Your task to perform on an android device: Open network settings Image 0: 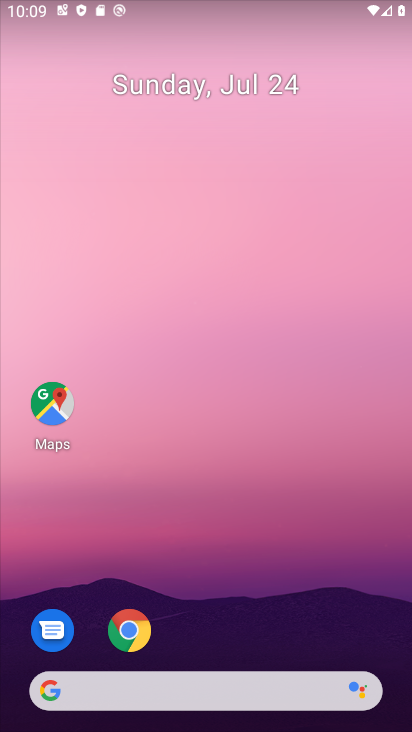
Step 0: drag from (222, 657) to (175, 169)
Your task to perform on an android device: Open network settings Image 1: 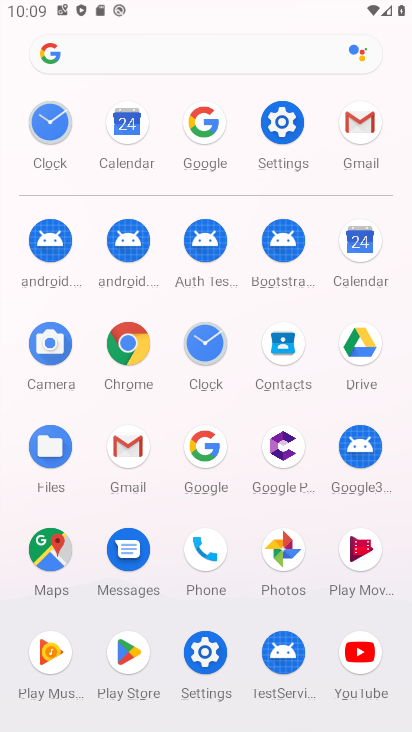
Step 1: click (283, 125)
Your task to perform on an android device: Open network settings Image 2: 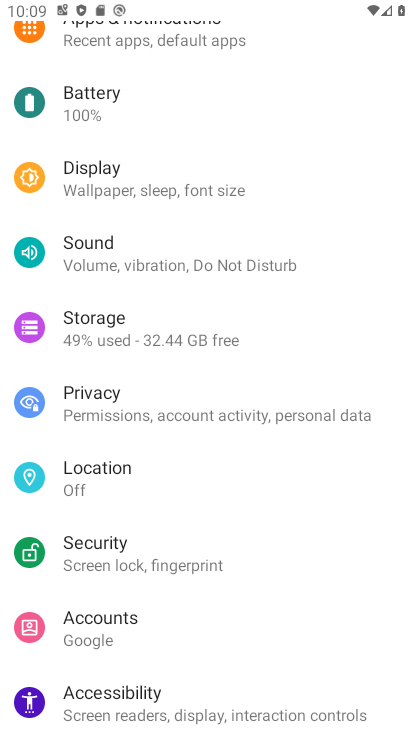
Step 2: drag from (189, 116) to (204, 371)
Your task to perform on an android device: Open network settings Image 3: 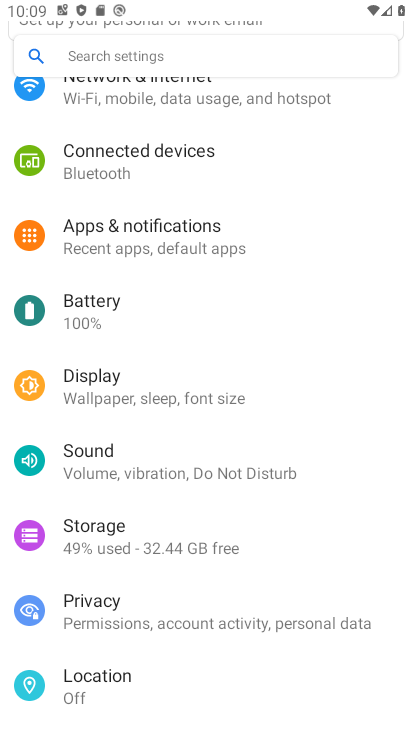
Step 3: click (147, 106)
Your task to perform on an android device: Open network settings Image 4: 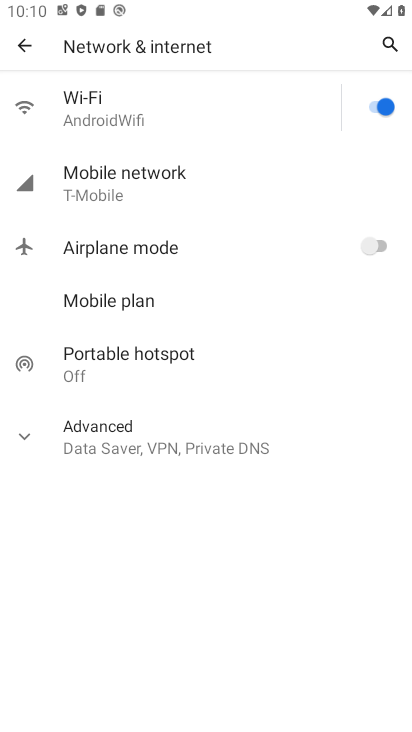
Step 4: task complete